Your task to perform on an android device: toggle sleep mode Image 0: 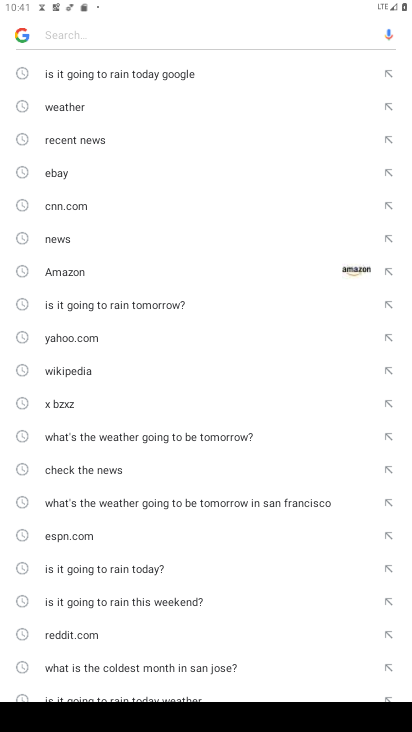
Step 0: press home button
Your task to perform on an android device: toggle sleep mode Image 1: 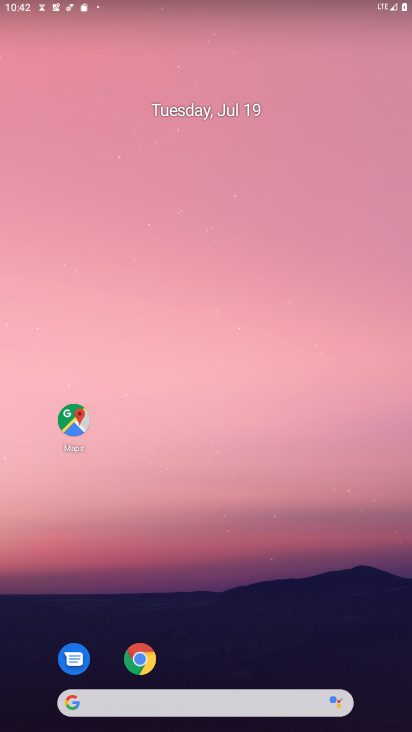
Step 1: drag from (191, 617) to (288, 298)
Your task to perform on an android device: toggle sleep mode Image 2: 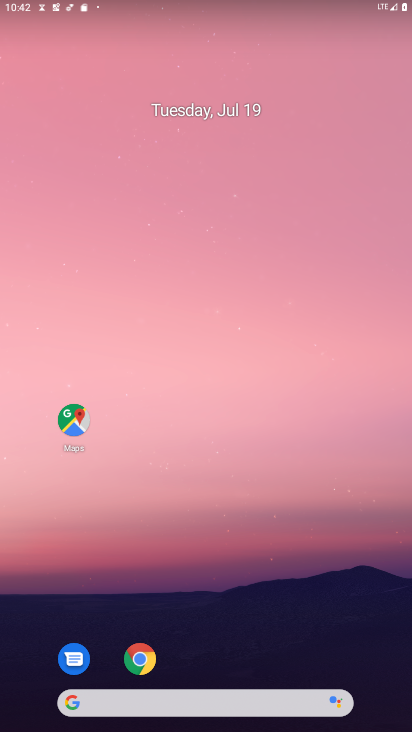
Step 2: drag from (204, 572) to (262, 101)
Your task to perform on an android device: toggle sleep mode Image 3: 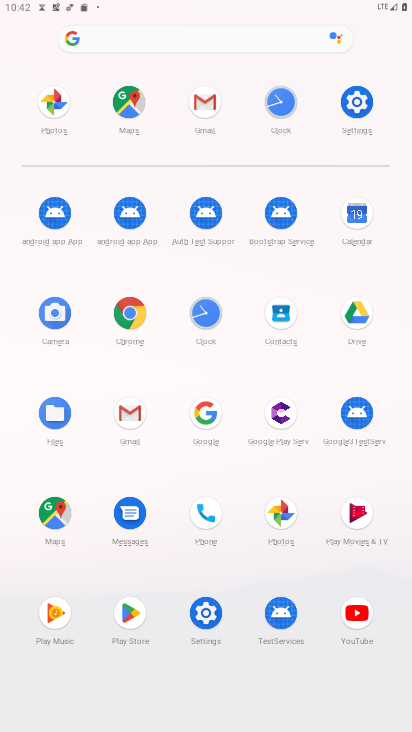
Step 3: click (200, 613)
Your task to perform on an android device: toggle sleep mode Image 4: 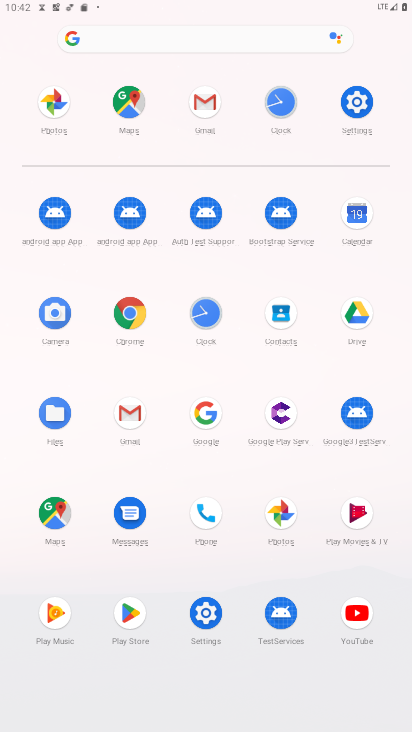
Step 4: click (204, 609)
Your task to perform on an android device: toggle sleep mode Image 5: 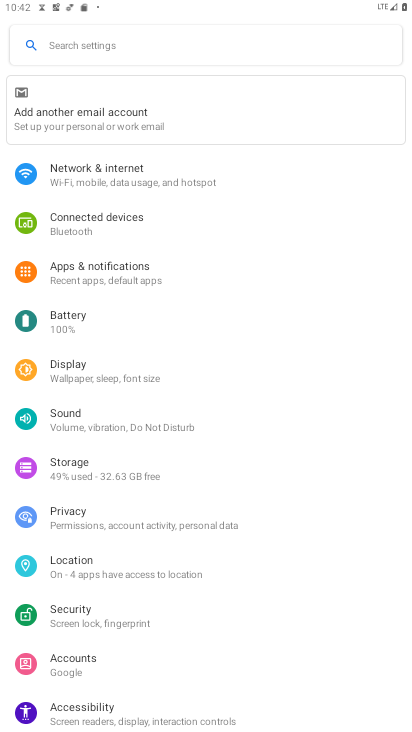
Step 5: click (127, 363)
Your task to perform on an android device: toggle sleep mode Image 6: 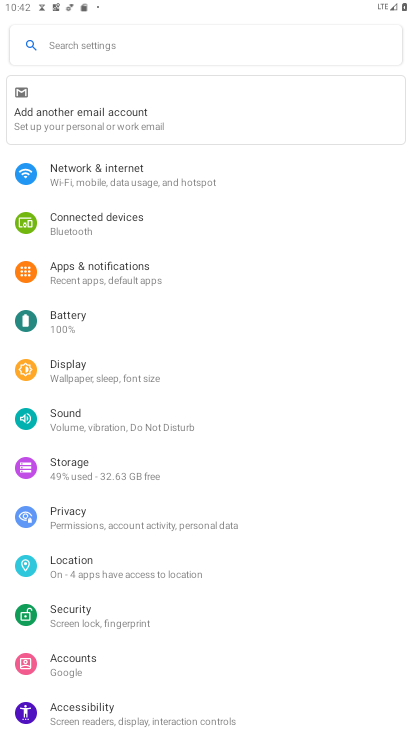
Step 6: click (127, 363)
Your task to perform on an android device: toggle sleep mode Image 7: 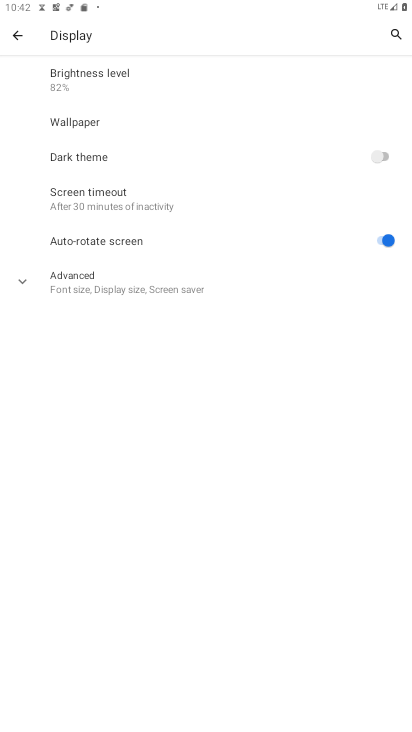
Step 7: click (112, 194)
Your task to perform on an android device: toggle sleep mode Image 8: 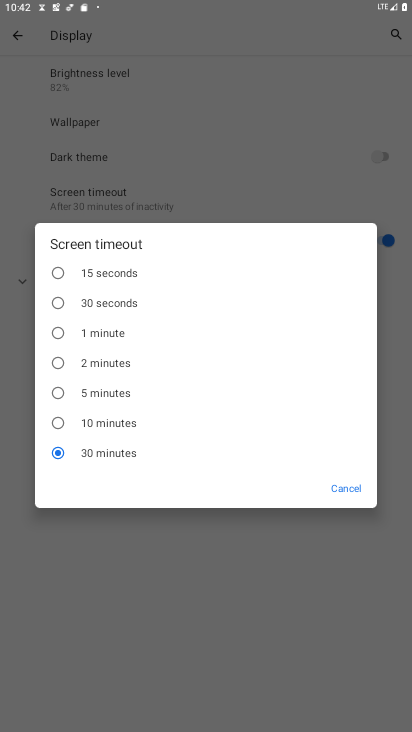
Step 8: click (90, 270)
Your task to perform on an android device: toggle sleep mode Image 9: 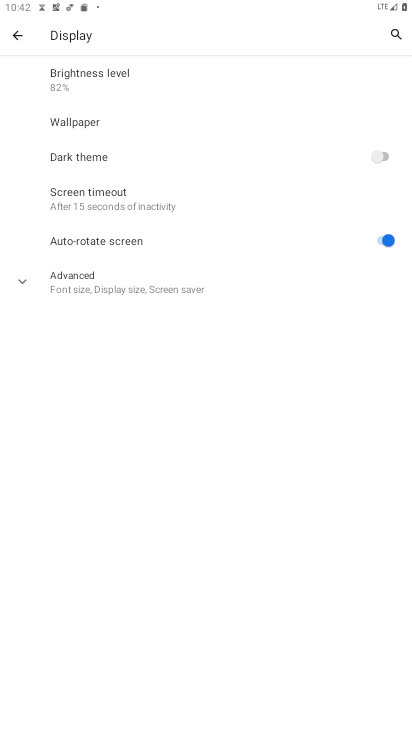
Step 9: task complete